Your task to perform on an android device: Open Wikipedia Image 0: 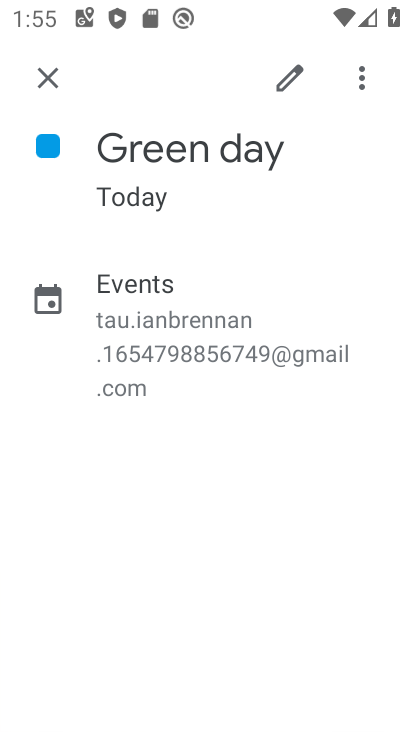
Step 0: press home button
Your task to perform on an android device: Open Wikipedia Image 1: 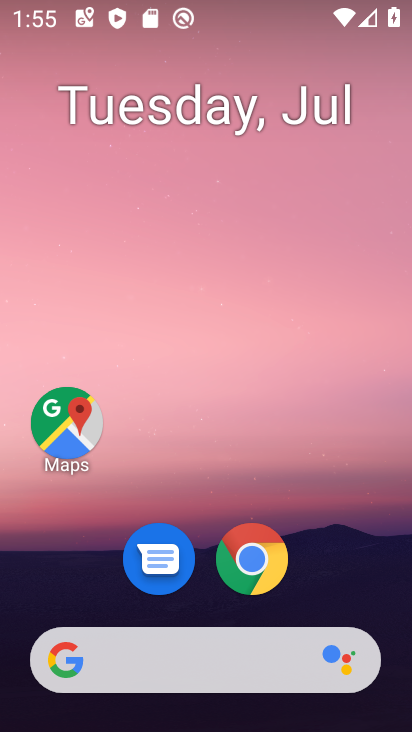
Step 1: drag from (320, 586) to (337, 53)
Your task to perform on an android device: Open Wikipedia Image 2: 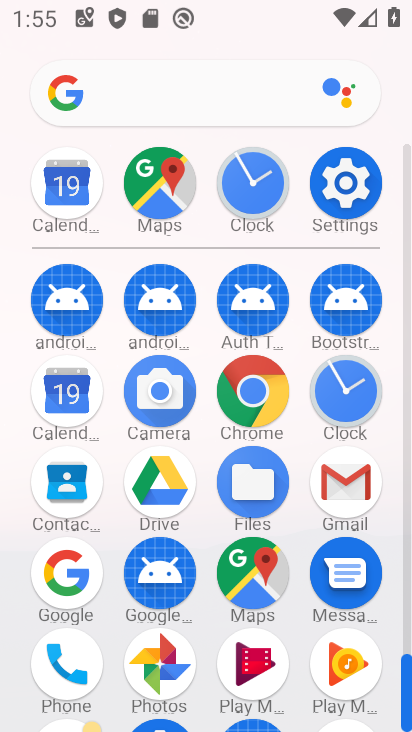
Step 2: click (259, 387)
Your task to perform on an android device: Open Wikipedia Image 3: 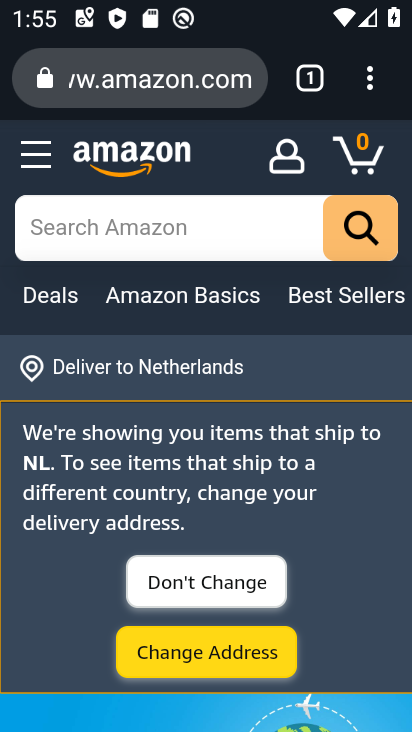
Step 3: click (207, 92)
Your task to perform on an android device: Open Wikipedia Image 4: 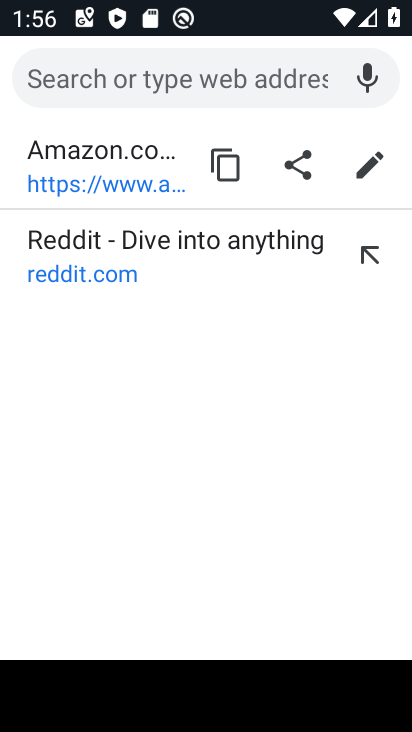
Step 4: type "wikipedia"
Your task to perform on an android device: Open Wikipedia Image 5: 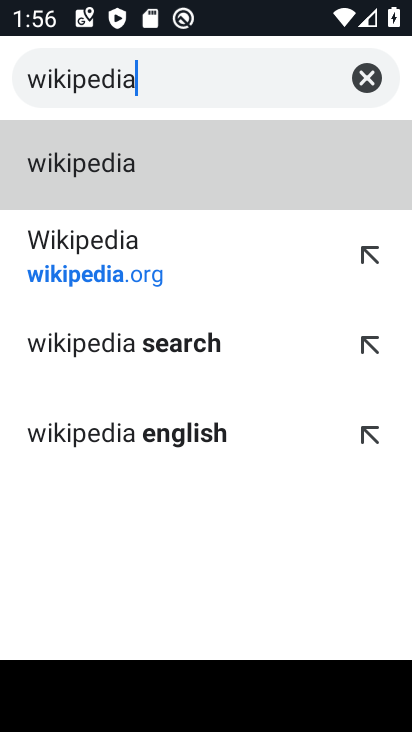
Step 5: click (137, 171)
Your task to perform on an android device: Open Wikipedia Image 6: 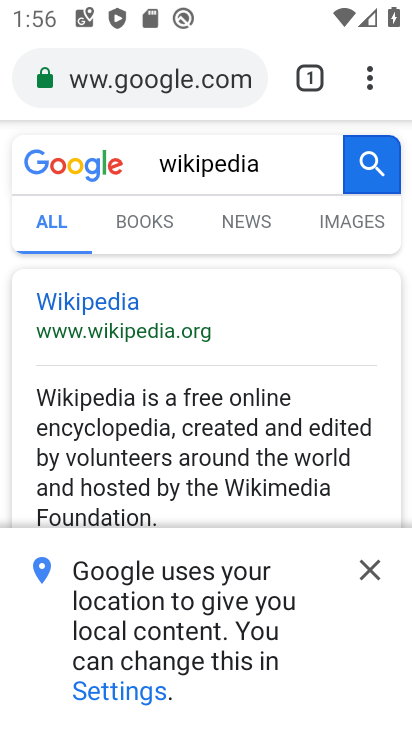
Step 6: task complete